Your task to perform on an android device: turn off location history Image 0: 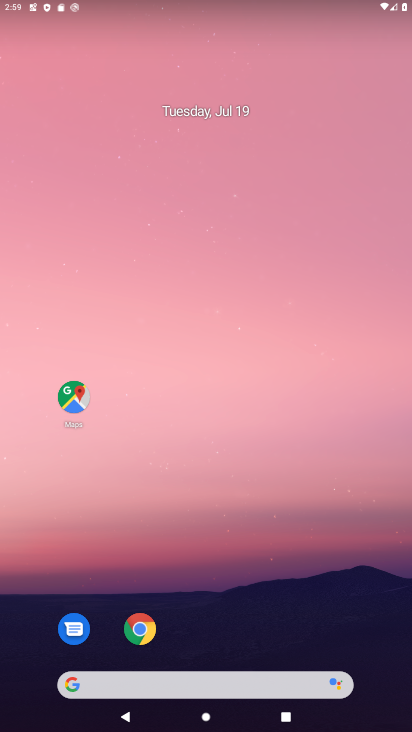
Step 0: drag from (191, 684) to (160, 252)
Your task to perform on an android device: turn off location history Image 1: 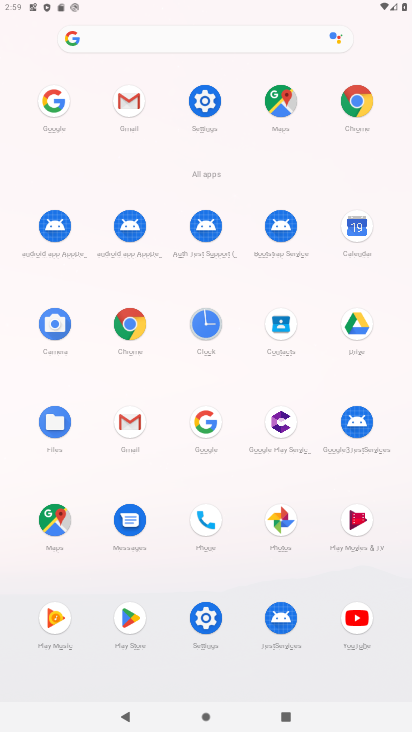
Step 1: click (214, 105)
Your task to perform on an android device: turn off location history Image 2: 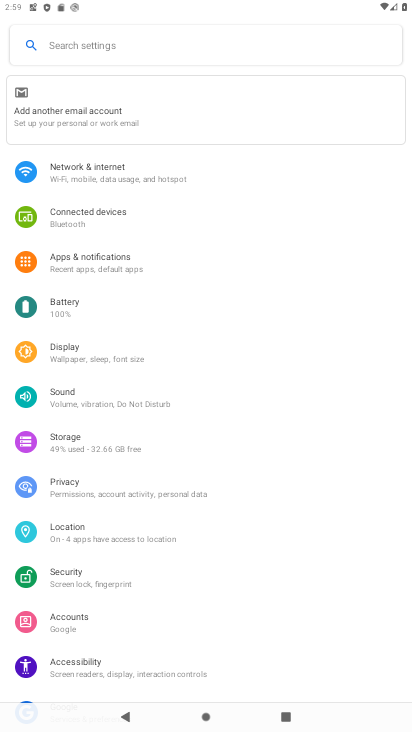
Step 2: click (95, 528)
Your task to perform on an android device: turn off location history Image 3: 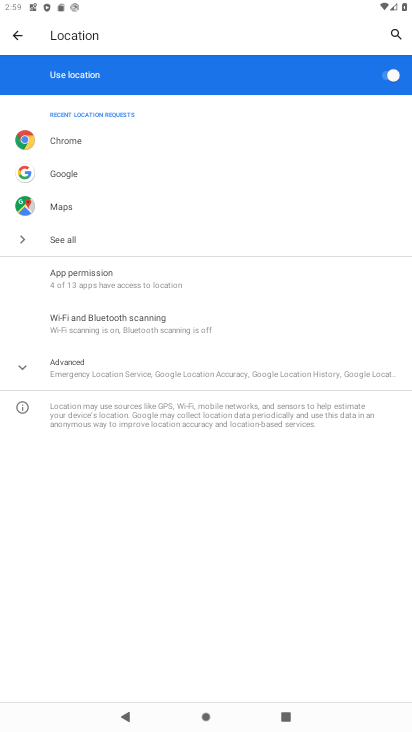
Step 3: click (114, 375)
Your task to perform on an android device: turn off location history Image 4: 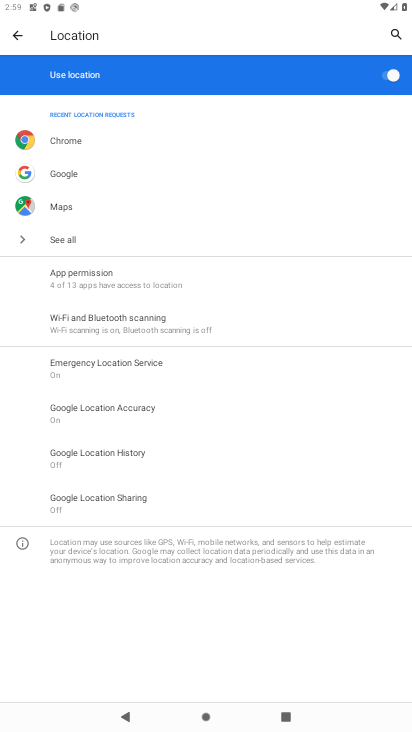
Step 4: click (125, 457)
Your task to perform on an android device: turn off location history Image 5: 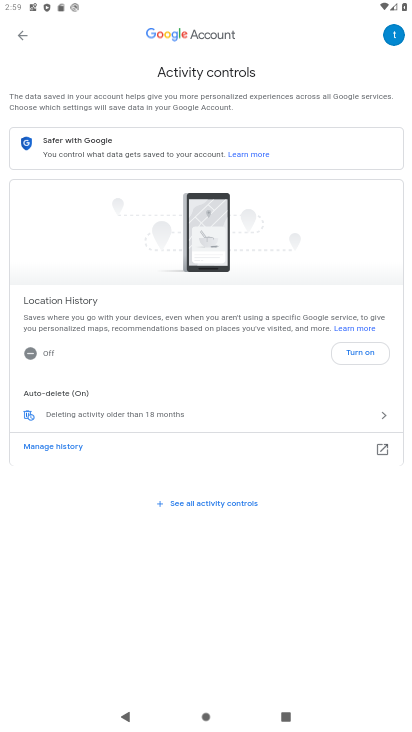
Step 5: task complete